Your task to perform on an android device: change the upload size in google photos Image 0: 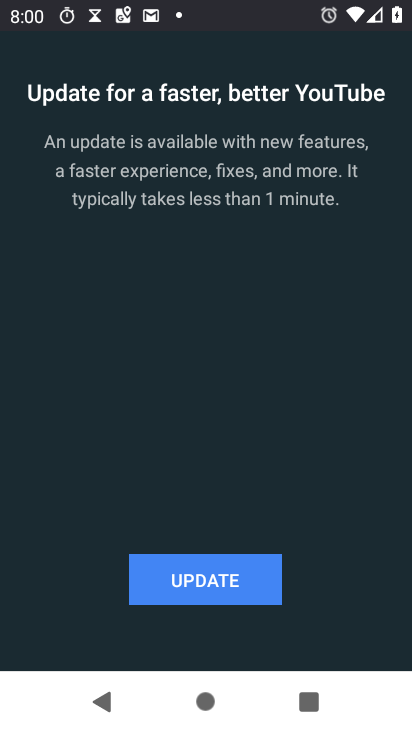
Step 0: press back button
Your task to perform on an android device: change the upload size in google photos Image 1: 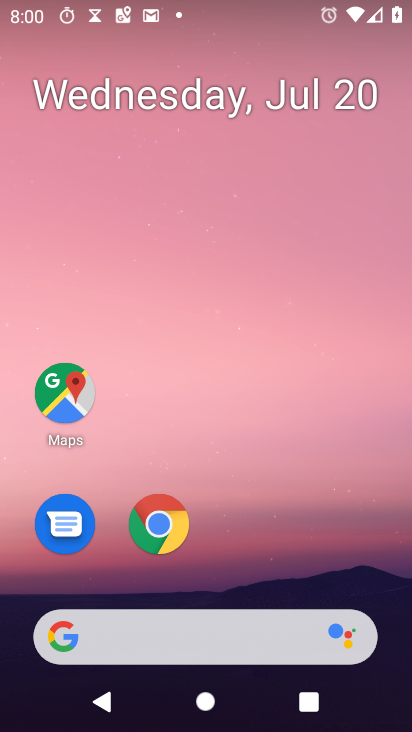
Step 1: drag from (180, 631) to (354, 165)
Your task to perform on an android device: change the upload size in google photos Image 2: 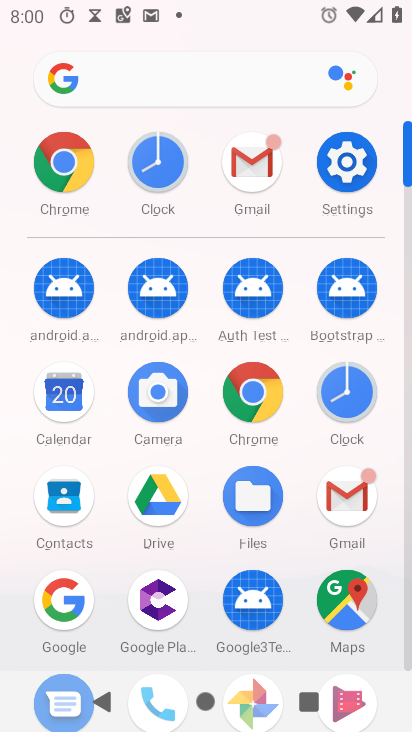
Step 2: drag from (214, 608) to (335, 219)
Your task to perform on an android device: change the upload size in google photos Image 3: 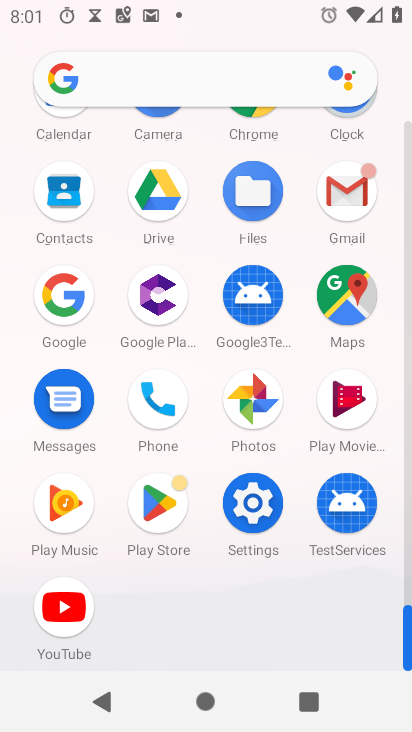
Step 3: click (238, 386)
Your task to perform on an android device: change the upload size in google photos Image 4: 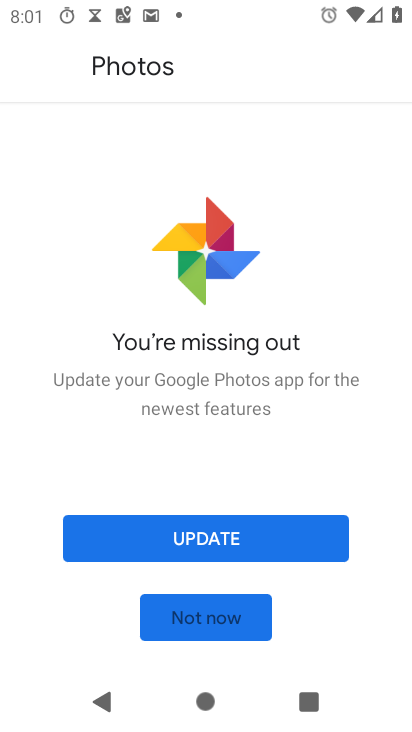
Step 4: click (203, 617)
Your task to perform on an android device: change the upload size in google photos Image 5: 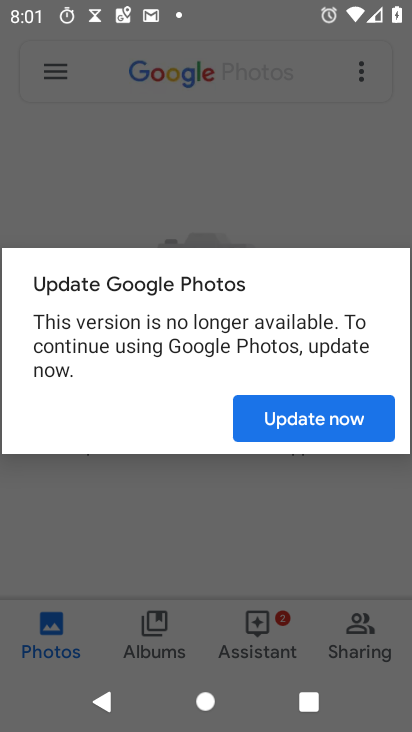
Step 5: click (324, 415)
Your task to perform on an android device: change the upload size in google photos Image 6: 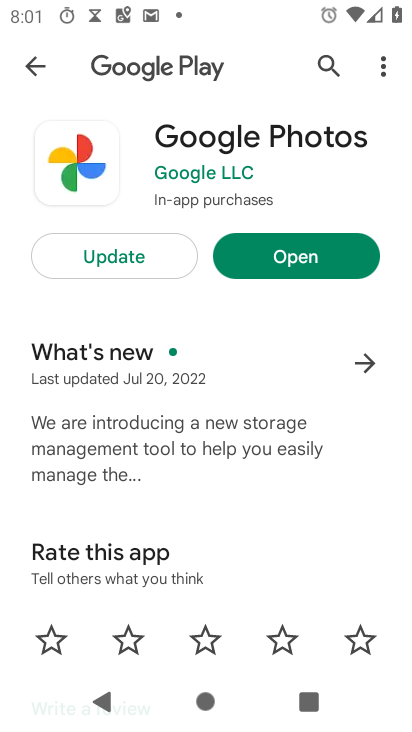
Step 6: click (27, 73)
Your task to perform on an android device: change the upload size in google photos Image 7: 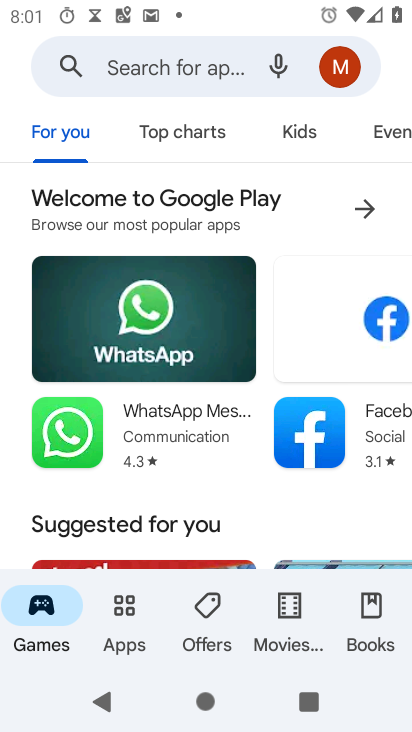
Step 7: press back button
Your task to perform on an android device: change the upload size in google photos Image 8: 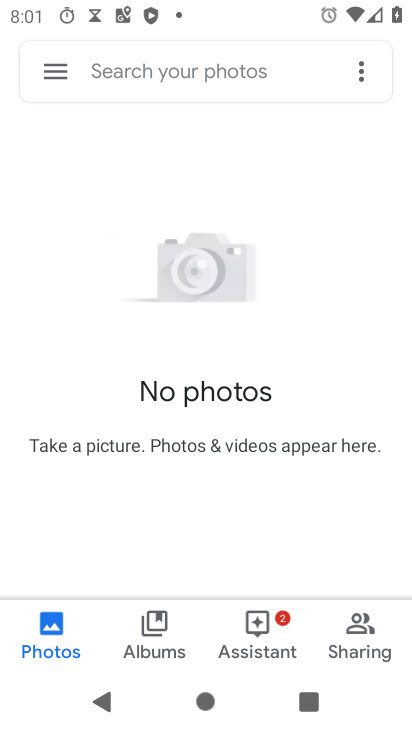
Step 8: click (61, 80)
Your task to perform on an android device: change the upload size in google photos Image 9: 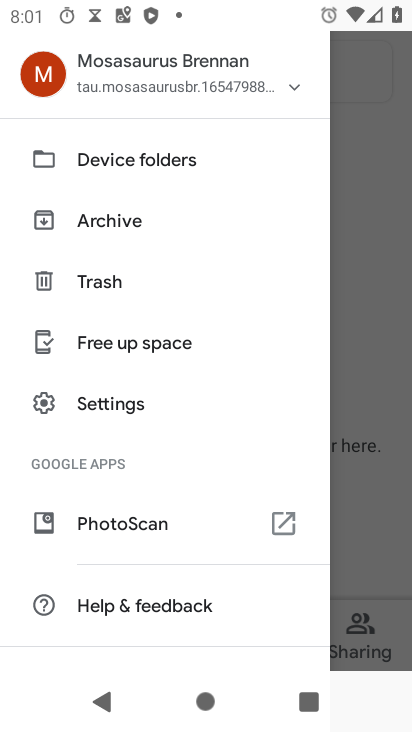
Step 9: click (123, 399)
Your task to perform on an android device: change the upload size in google photos Image 10: 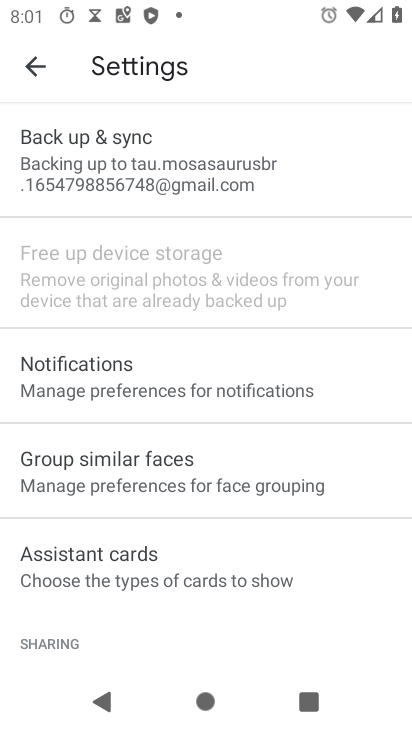
Step 10: click (187, 180)
Your task to perform on an android device: change the upload size in google photos Image 11: 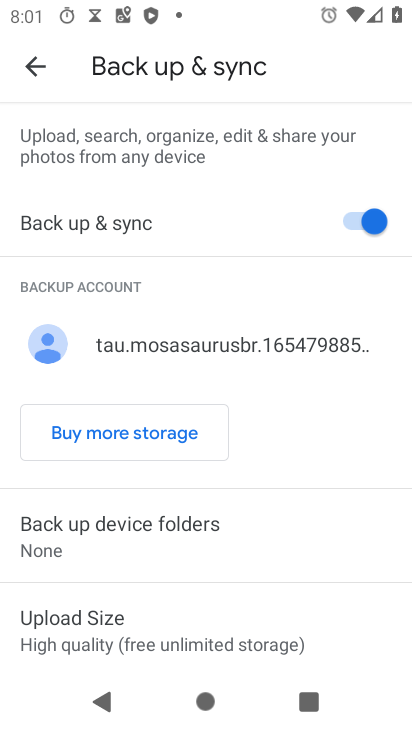
Step 11: click (117, 640)
Your task to perform on an android device: change the upload size in google photos Image 12: 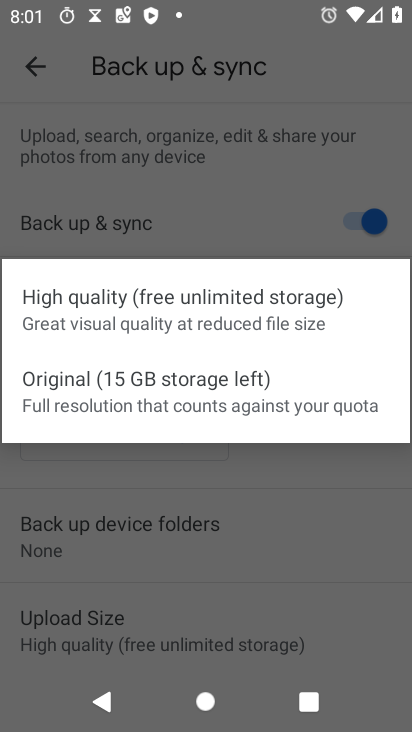
Step 12: click (96, 382)
Your task to perform on an android device: change the upload size in google photos Image 13: 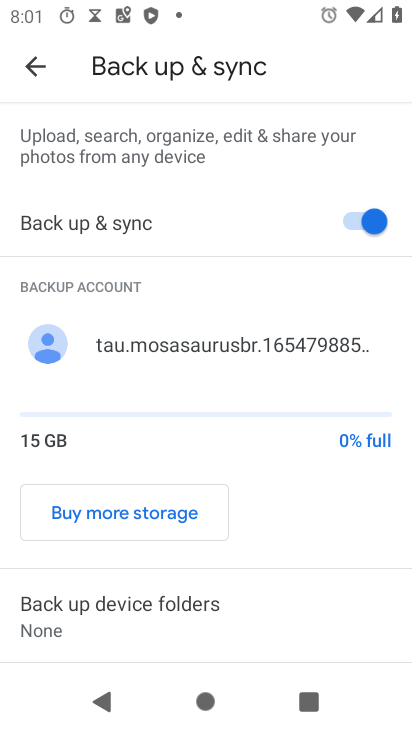
Step 13: task complete